Your task to perform on an android device: Go to Google maps Image 0: 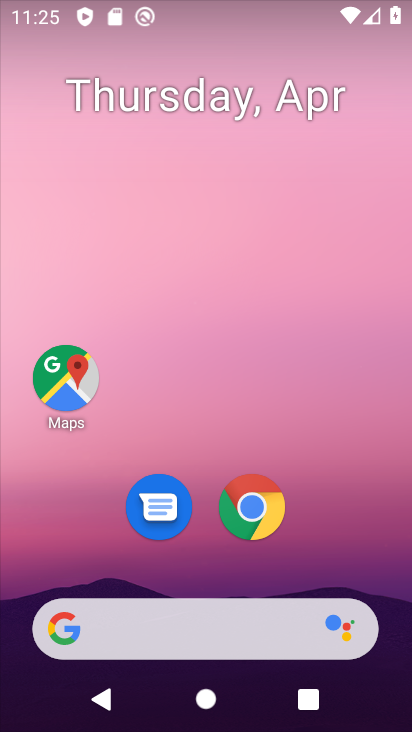
Step 0: drag from (197, 729) to (198, 162)
Your task to perform on an android device: Go to Google maps Image 1: 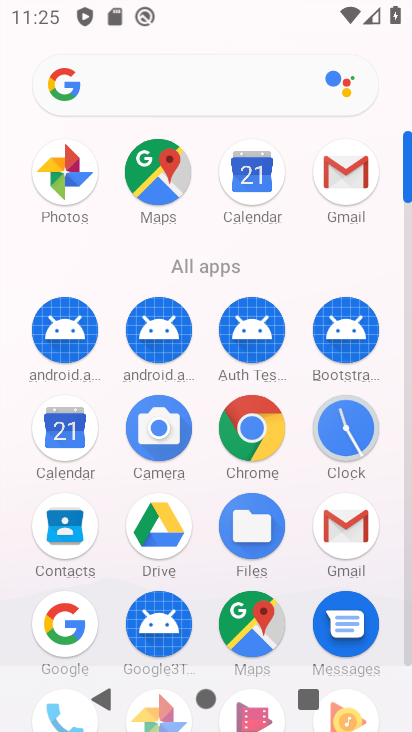
Step 1: click (250, 627)
Your task to perform on an android device: Go to Google maps Image 2: 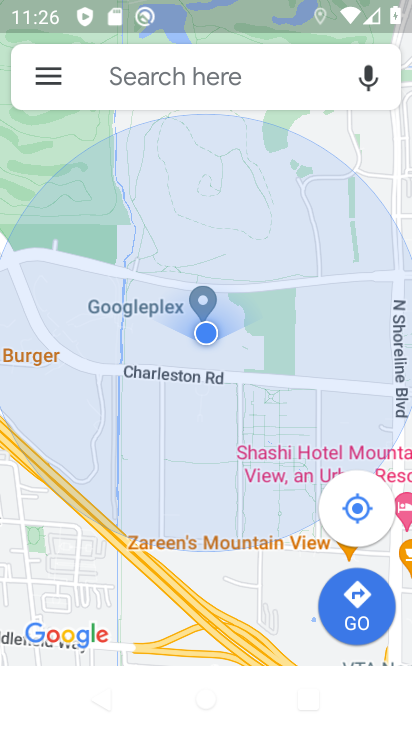
Step 2: task complete